Your task to perform on an android device: Open Youtube and go to "Your channel" Image 0: 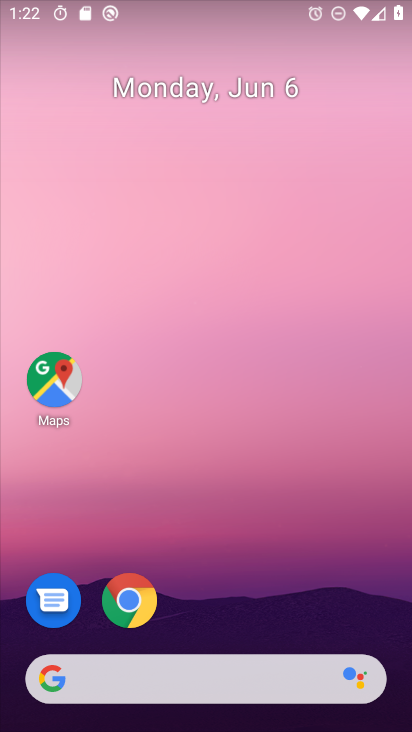
Step 0: drag from (224, 644) to (212, 268)
Your task to perform on an android device: Open Youtube and go to "Your channel" Image 1: 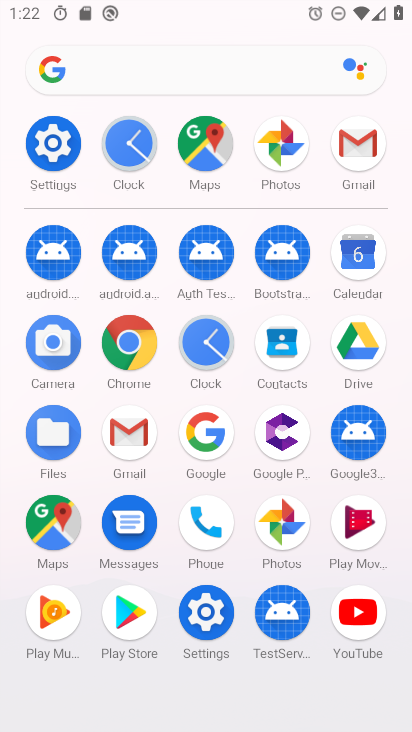
Step 1: click (344, 601)
Your task to perform on an android device: Open Youtube and go to "Your channel" Image 2: 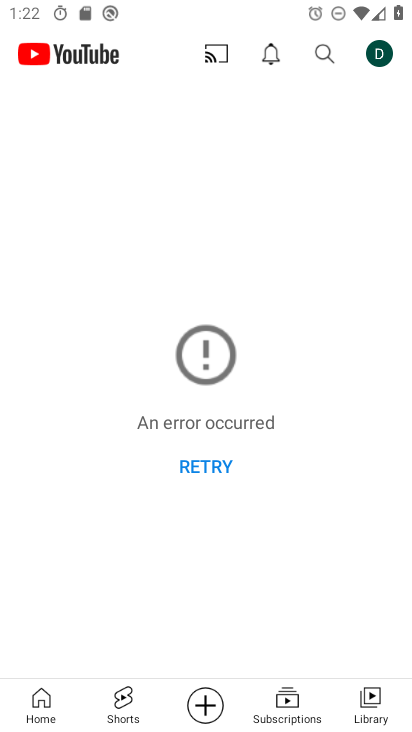
Step 2: click (382, 53)
Your task to perform on an android device: Open Youtube and go to "Your channel" Image 3: 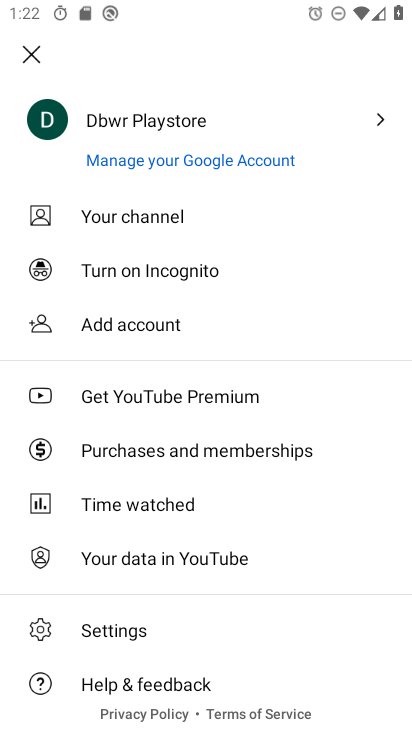
Step 3: click (150, 214)
Your task to perform on an android device: Open Youtube and go to "Your channel" Image 4: 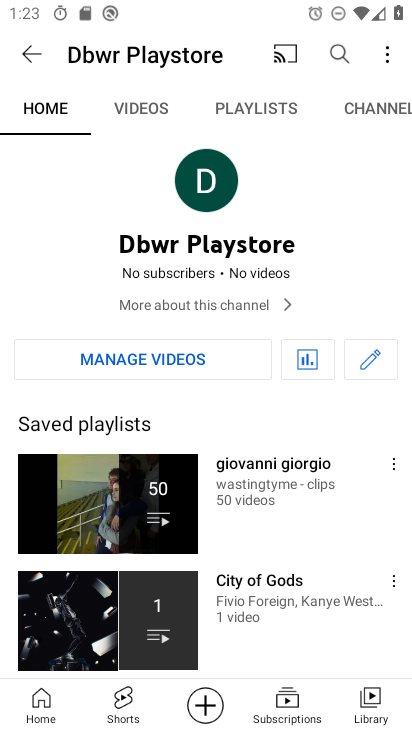
Step 4: task complete